Your task to perform on an android device: Show the shopping cart on walmart.com. Search for bose quietcomfort 35 on walmart.com, select the first entry, and add it to the cart. Image 0: 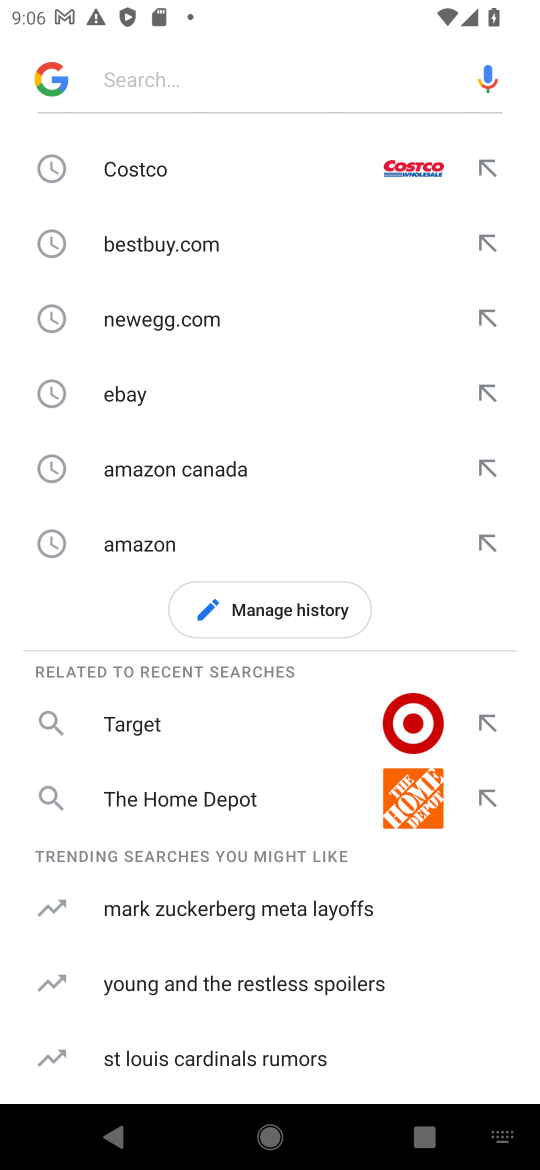
Step 0: type "walmart.com"
Your task to perform on an android device: Show the shopping cart on walmart.com. Search for bose quietcomfort 35 on walmart.com, select the first entry, and add it to the cart. Image 1: 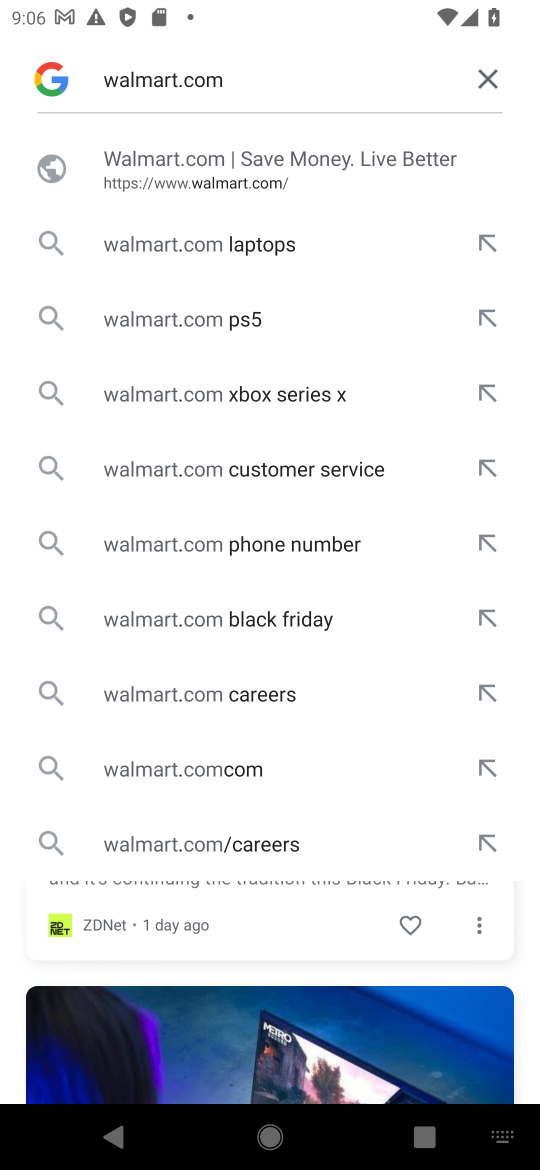
Step 1: click (186, 183)
Your task to perform on an android device: Show the shopping cart on walmart.com. Search for bose quietcomfort 35 on walmart.com, select the first entry, and add it to the cart. Image 2: 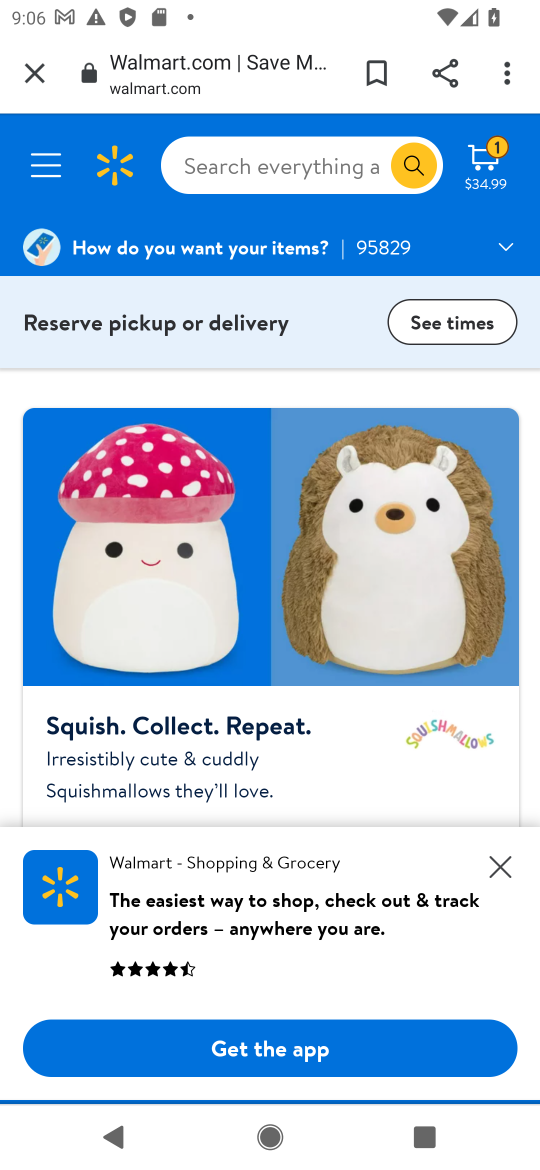
Step 2: click (266, 177)
Your task to perform on an android device: Show the shopping cart on walmart.com. Search for bose quietcomfort 35 on walmart.com, select the first entry, and add it to the cart. Image 3: 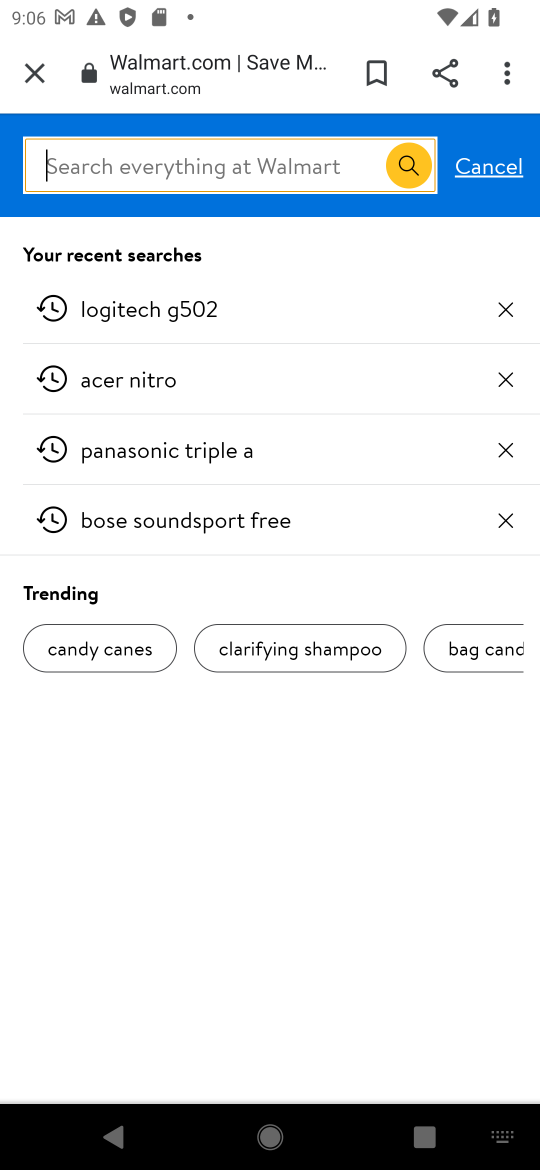
Step 3: click (475, 162)
Your task to perform on an android device: Show the shopping cart on walmart.com. Search for bose quietcomfort 35 on walmart.com, select the first entry, and add it to the cart. Image 4: 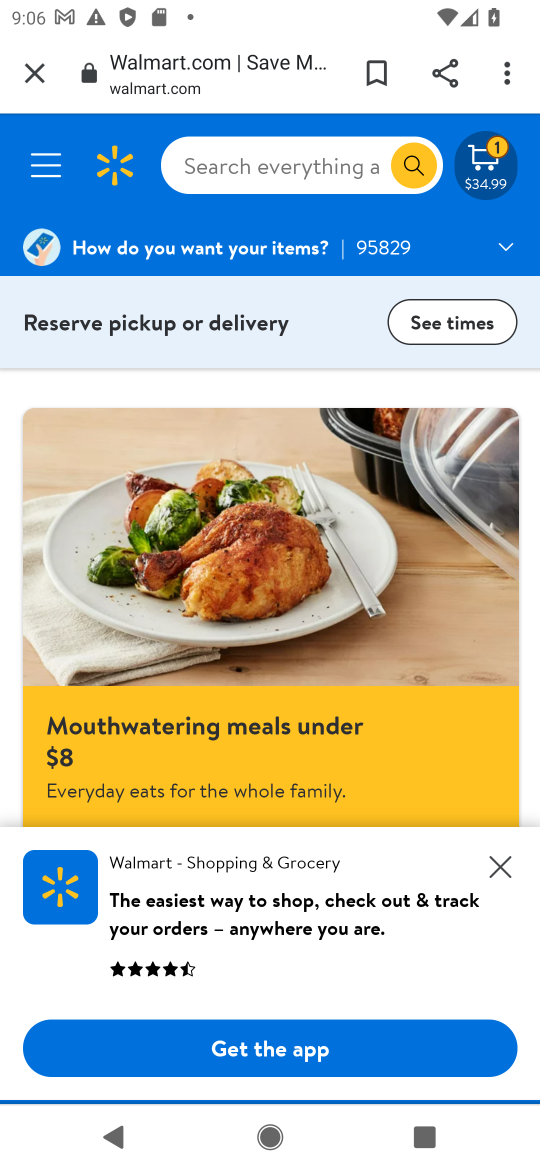
Step 4: click (476, 184)
Your task to perform on an android device: Show the shopping cart on walmart.com. Search for bose quietcomfort 35 on walmart.com, select the first entry, and add it to the cart. Image 5: 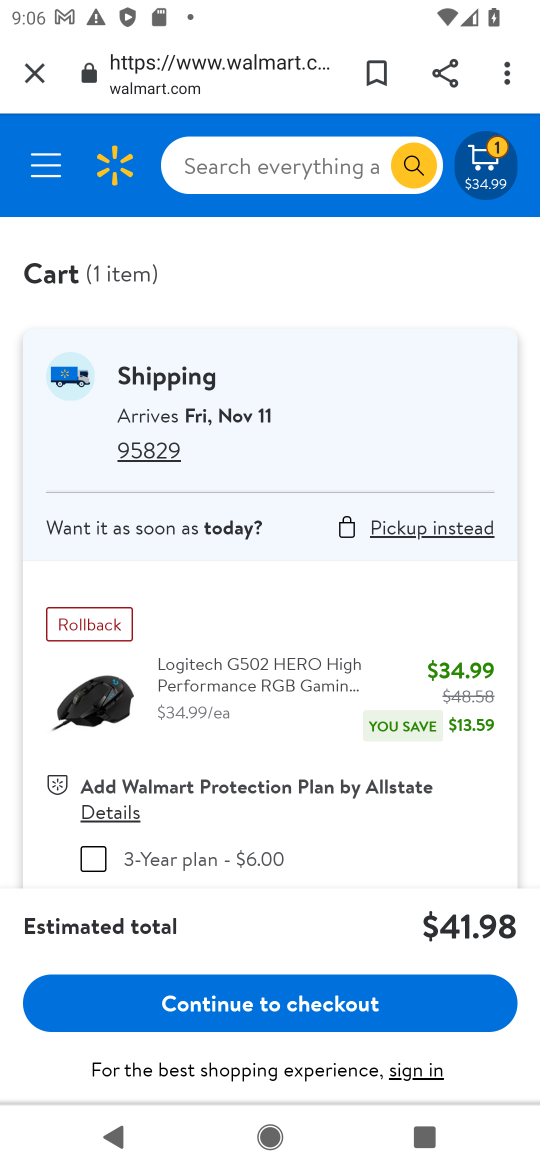
Step 5: click (284, 173)
Your task to perform on an android device: Show the shopping cart on walmart.com. Search for bose quietcomfort 35 on walmart.com, select the first entry, and add it to the cart. Image 6: 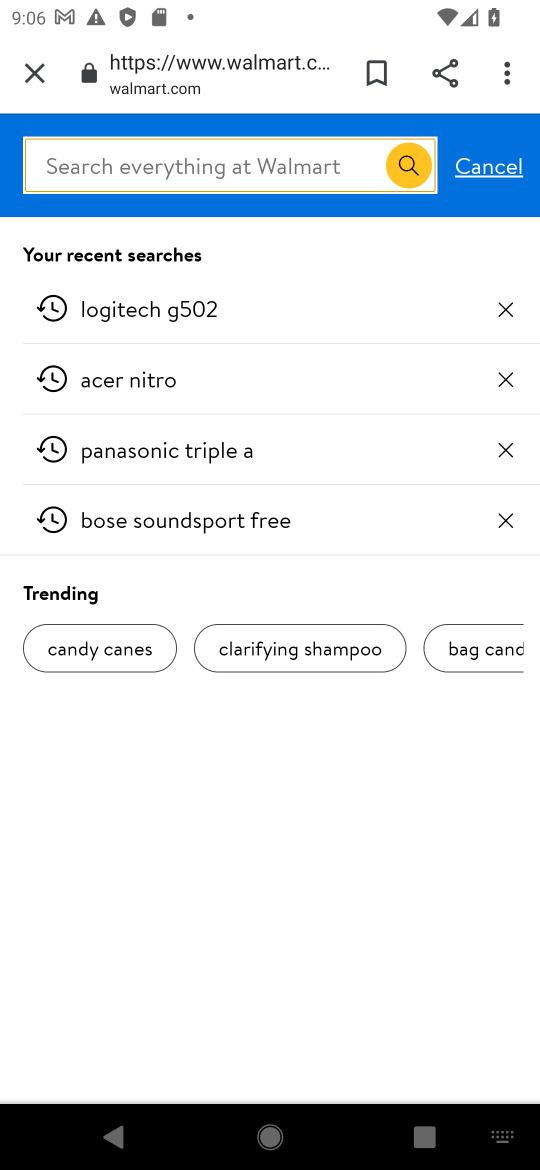
Step 6: type "bose quietcomfort 35"
Your task to perform on an android device: Show the shopping cart on walmart.com. Search for bose quietcomfort 35 on walmart.com, select the first entry, and add it to the cart. Image 7: 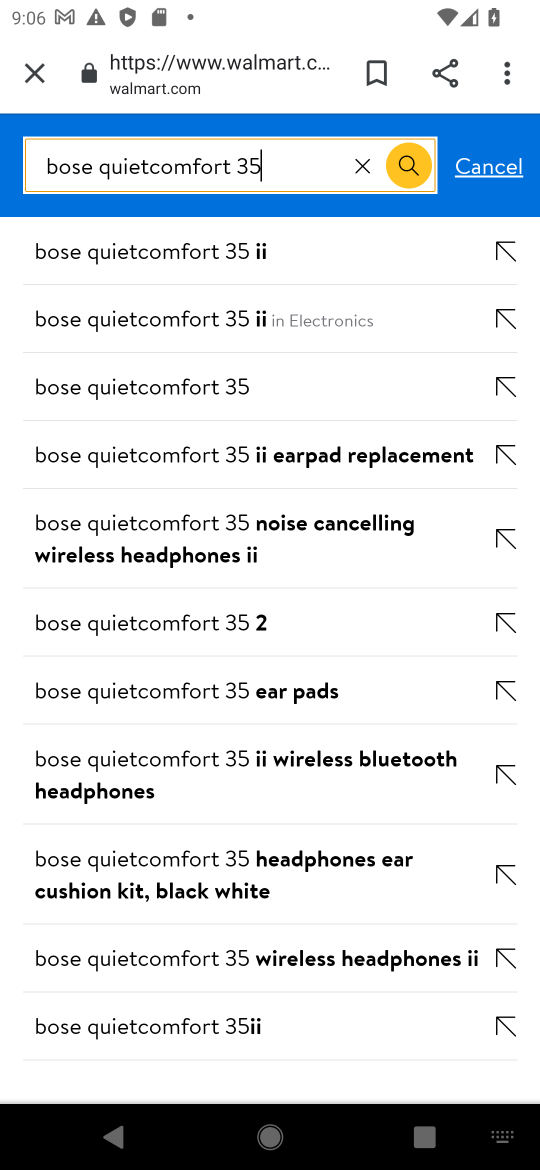
Step 7: click (163, 394)
Your task to perform on an android device: Show the shopping cart on walmart.com. Search for bose quietcomfort 35 on walmart.com, select the first entry, and add it to the cart. Image 8: 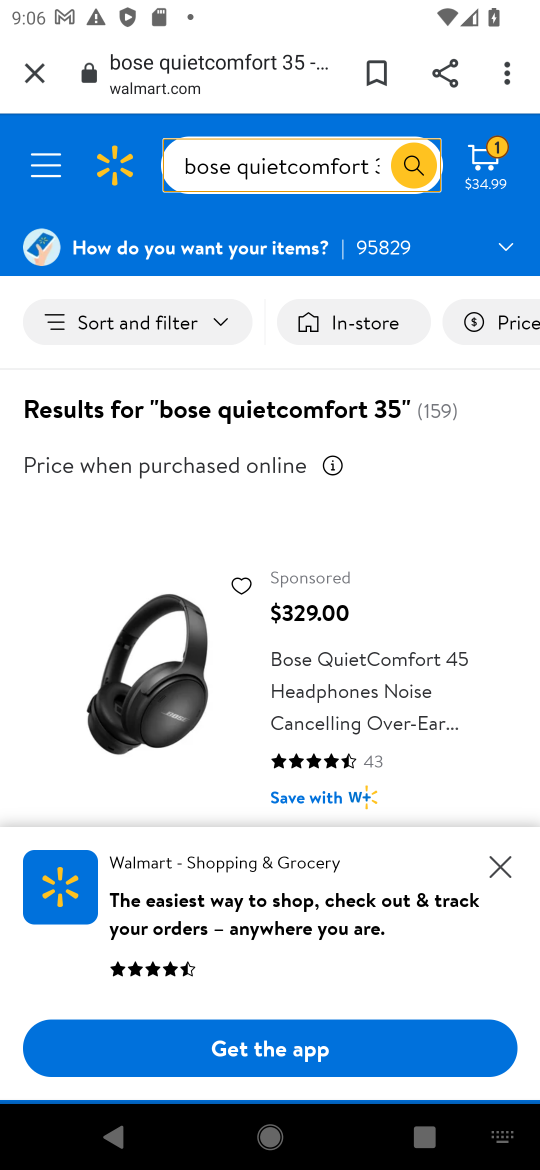
Step 8: task complete